Your task to perform on an android device: toggle data saver in the chrome app Image 0: 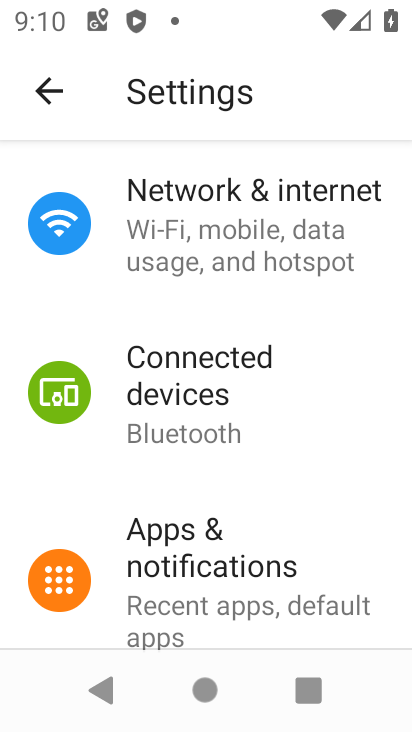
Step 0: press home button
Your task to perform on an android device: toggle data saver in the chrome app Image 1: 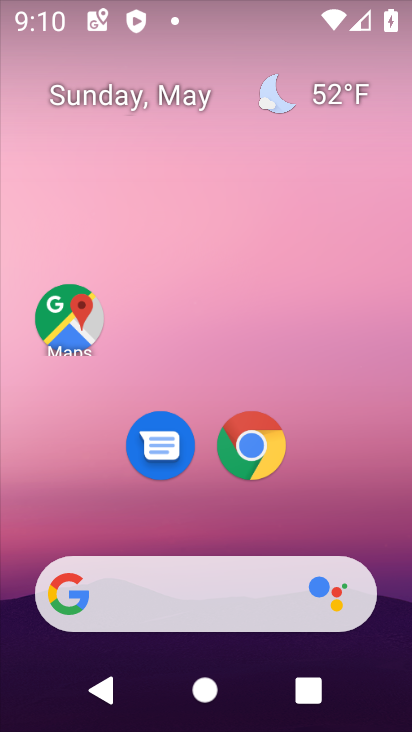
Step 1: click (243, 444)
Your task to perform on an android device: toggle data saver in the chrome app Image 2: 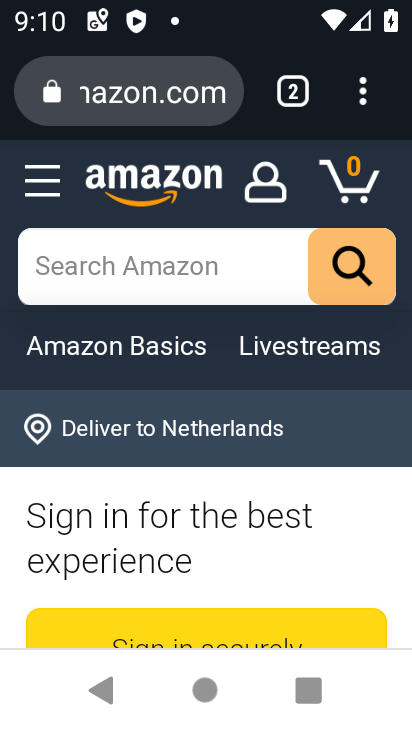
Step 2: click (364, 92)
Your task to perform on an android device: toggle data saver in the chrome app Image 3: 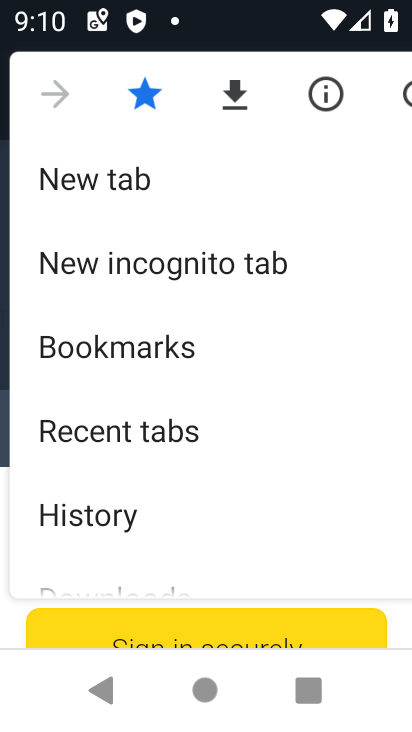
Step 3: drag from (272, 442) to (197, 87)
Your task to perform on an android device: toggle data saver in the chrome app Image 4: 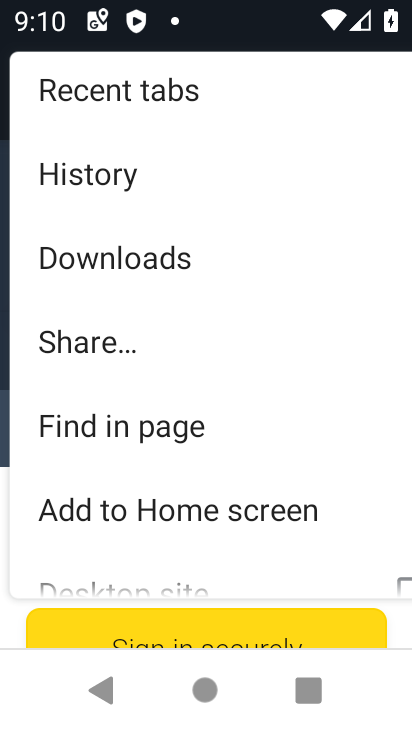
Step 4: drag from (239, 520) to (135, 175)
Your task to perform on an android device: toggle data saver in the chrome app Image 5: 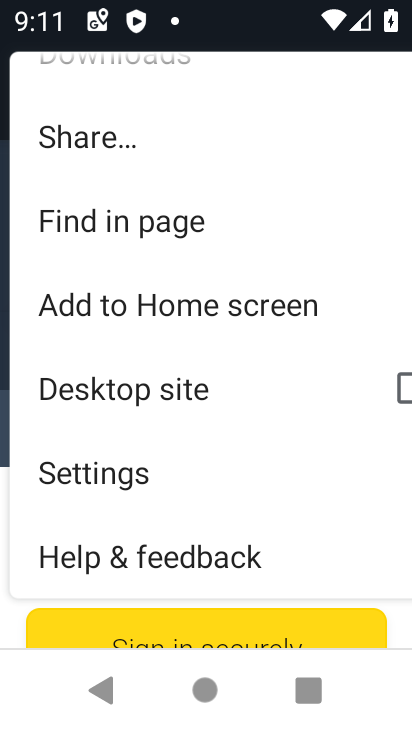
Step 5: click (120, 471)
Your task to perform on an android device: toggle data saver in the chrome app Image 6: 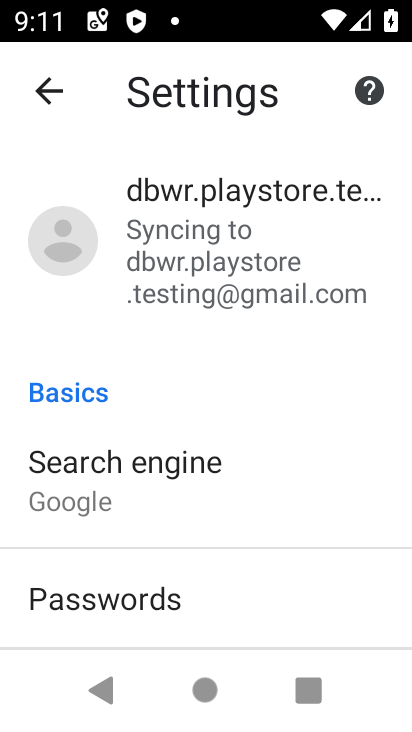
Step 6: drag from (183, 512) to (136, 247)
Your task to perform on an android device: toggle data saver in the chrome app Image 7: 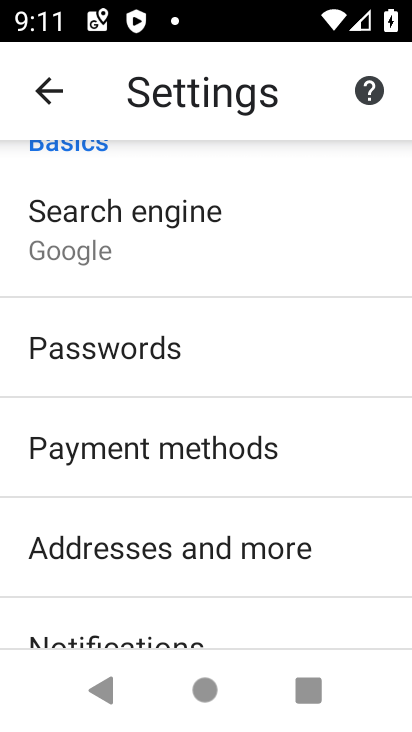
Step 7: drag from (246, 532) to (200, 269)
Your task to perform on an android device: toggle data saver in the chrome app Image 8: 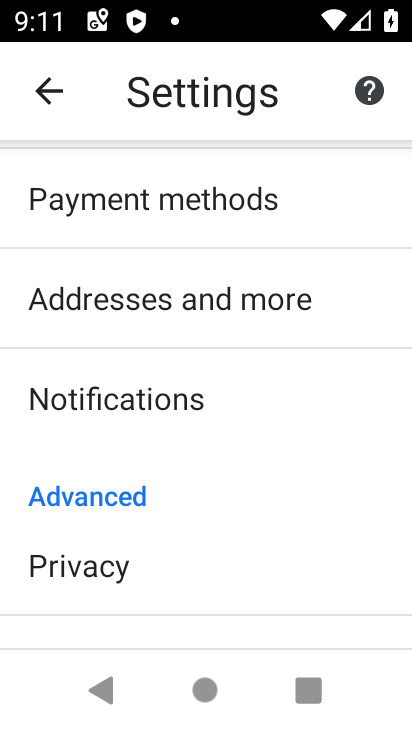
Step 8: drag from (179, 511) to (169, 257)
Your task to perform on an android device: toggle data saver in the chrome app Image 9: 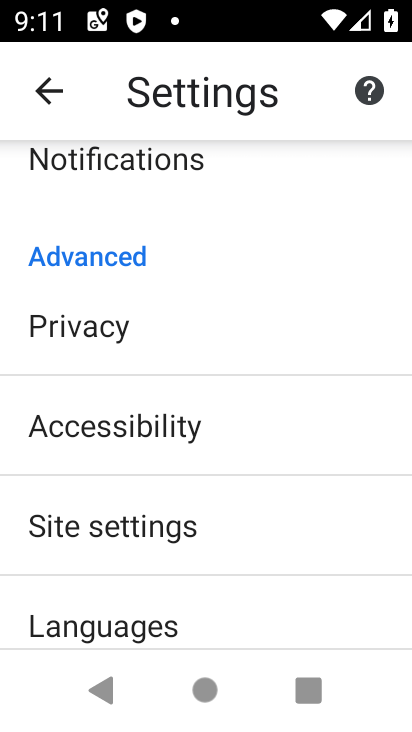
Step 9: drag from (192, 567) to (164, 358)
Your task to perform on an android device: toggle data saver in the chrome app Image 10: 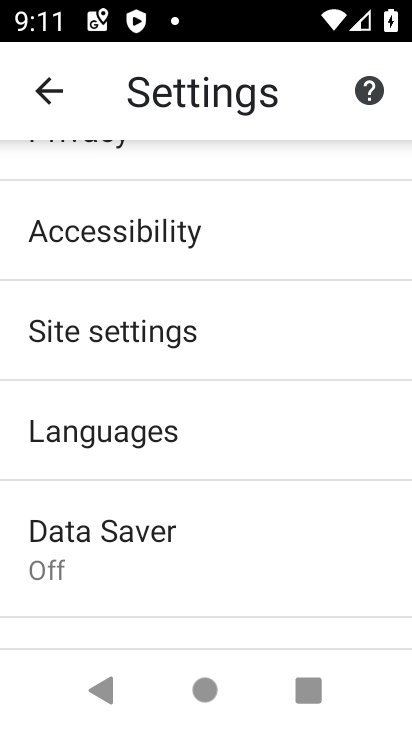
Step 10: click (112, 529)
Your task to perform on an android device: toggle data saver in the chrome app Image 11: 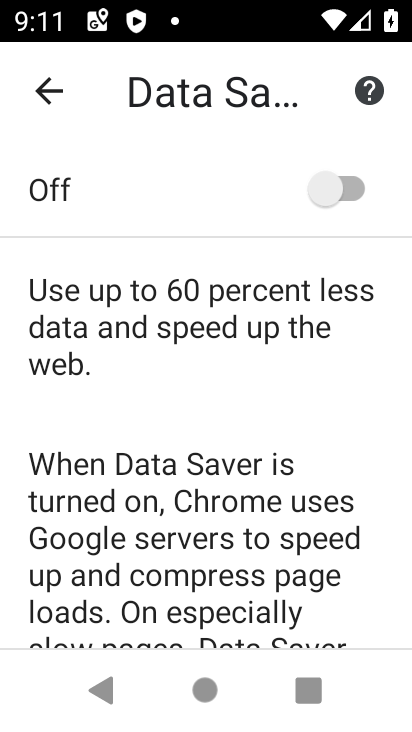
Step 11: click (322, 188)
Your task to perform on an android device: toggle data saver in the chrome app Image 12: 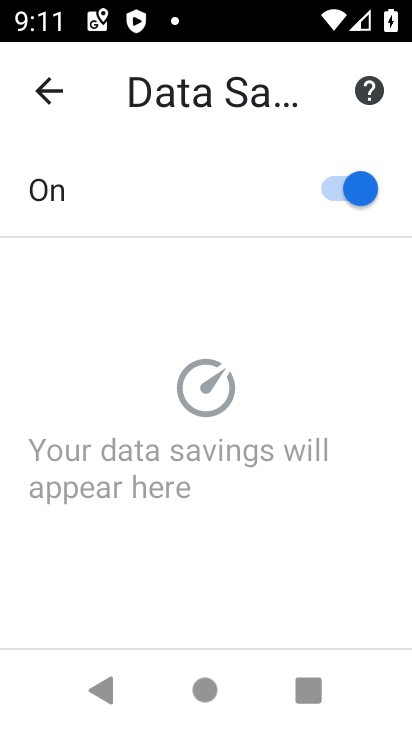
Step 12: task complete